Your task to perform on an android device: read, delete, or share a saved page in the chrome app Image 0: 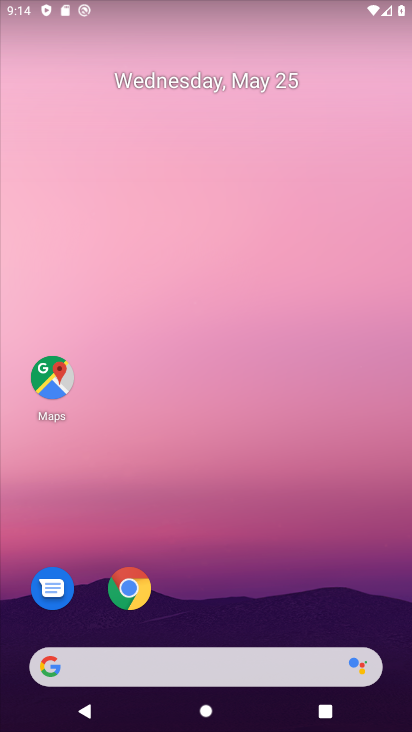
Step 0: click (128, 590)
Your task to perform on an android device: read, delete, or share a saved page in the chrome app Image 1: 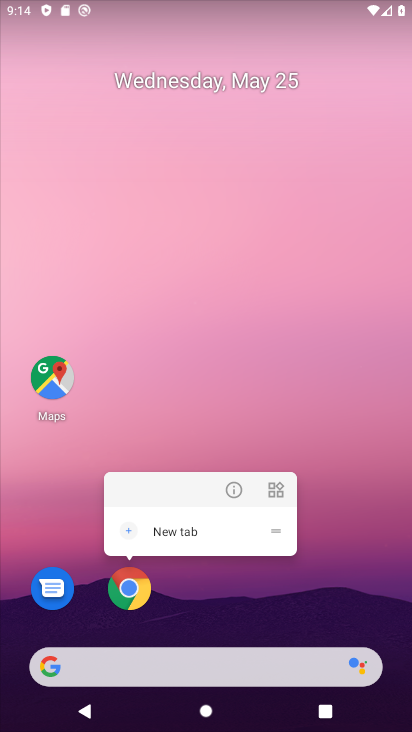
Step 1: click (128, 590)
Your task to perform on an android device: read, delete, or share a saved page in the chrome app Image 2: 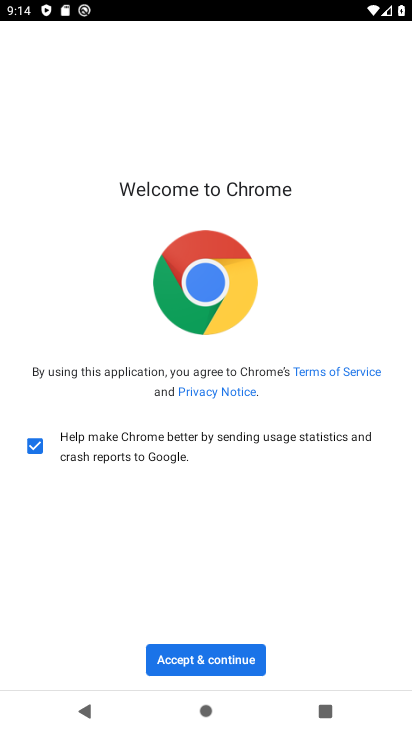
Step 2: click (215, 664)
Your task to perform on an android device: read, delete, or share a saved page in the chrome app Image 3: 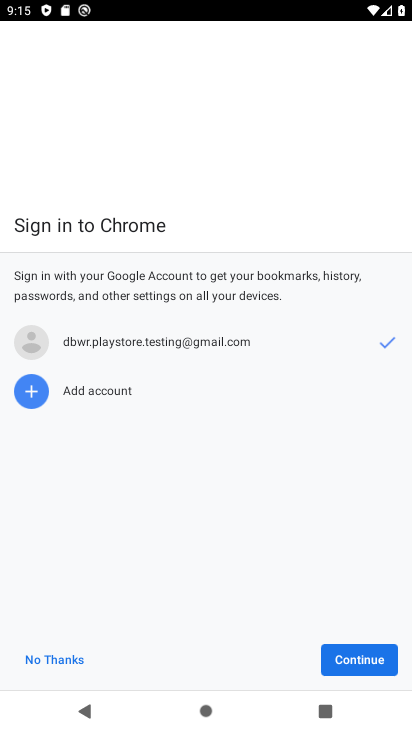
Step 3: click (366, 651)
Your task to perform on an android device: read, delete, or share a saved page in the chrome app Image 4: 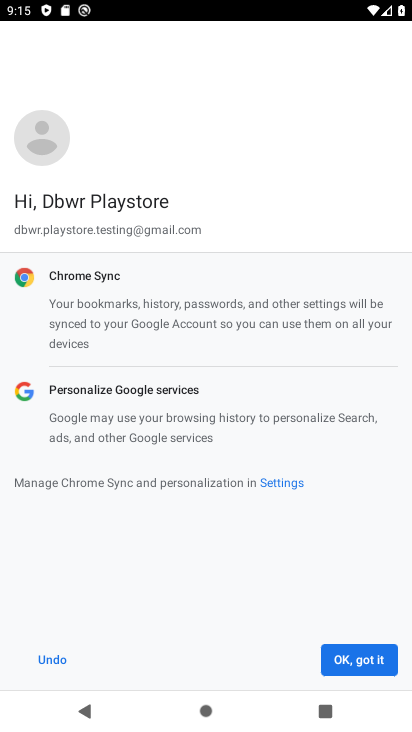
Step 4: click (366, 651)
Your task to perform on an android device: read, delete, or share a saved page in the chrome app Image 5: 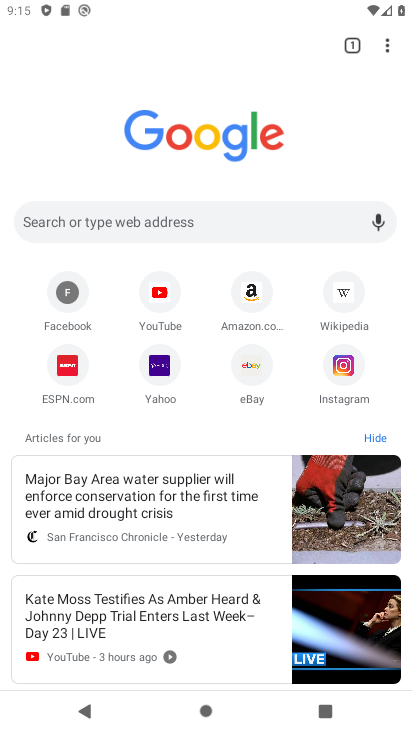
Step 5: click (387, 34)
Your task to perform on an android device: read, delete, or share a saved page in the chrome app Image 6: 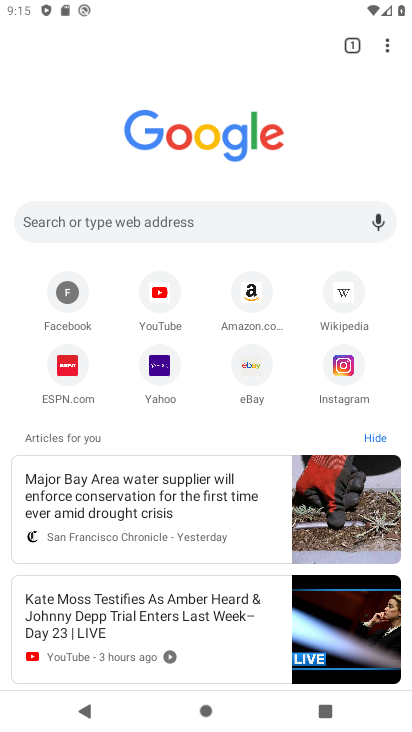
Step 6: click (387, 36)
Your task to perform on an android device: read, delete, or share a saved page in the chrome app Image 7: 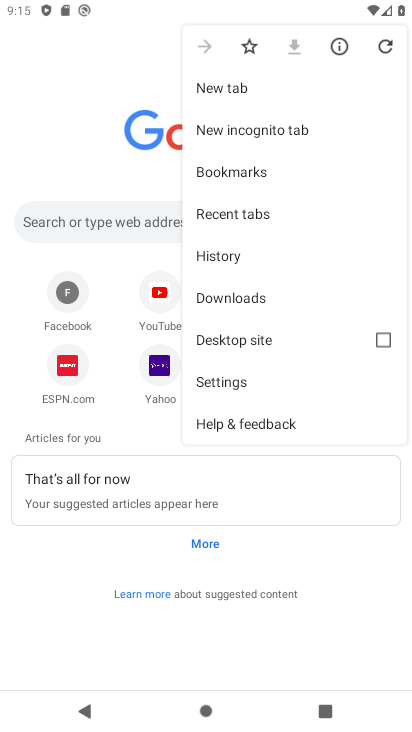
Step 7: click (234, 292)
Your task to perform on an android device: read, delete, or share a saved page in the chrome app Image 8: 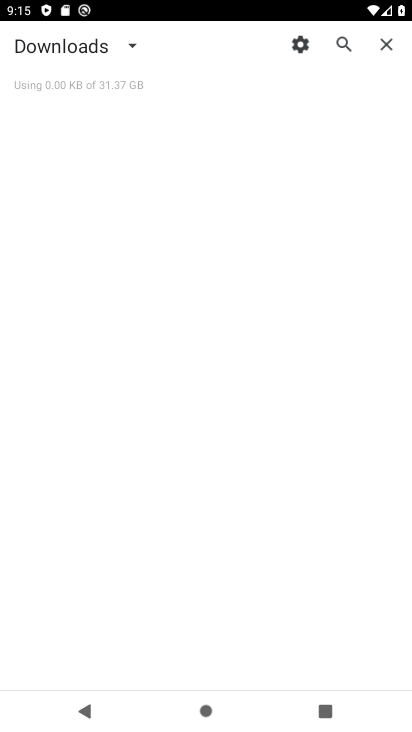
Step 8: click (107, 43)
Your task to perform on an android device: read, delete, or share a saved page in the chrome app Image 9: 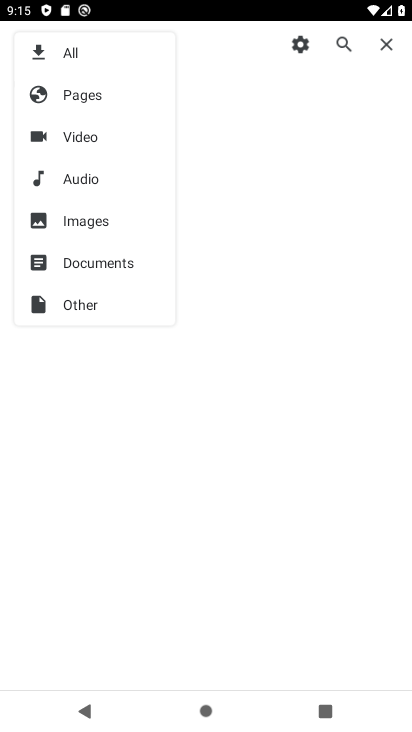
Step 9: click (79, 95)
Your task to perform on an android device: read, delete, or share a saved page in the chrome app Image 10: 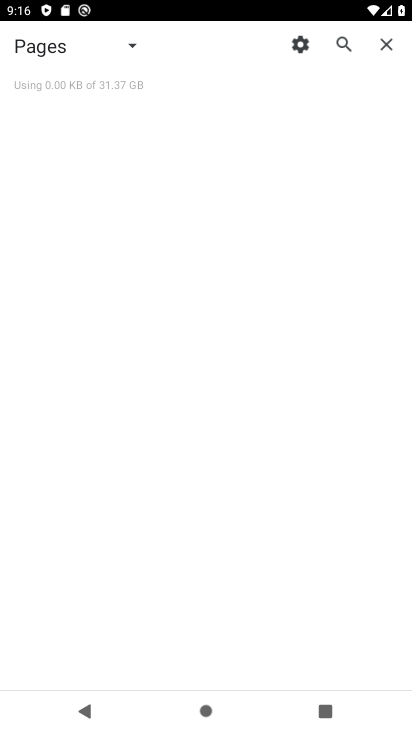
Step 10: task complete